Your task to perform on an android device: uninstall "Venmo" Image 0: 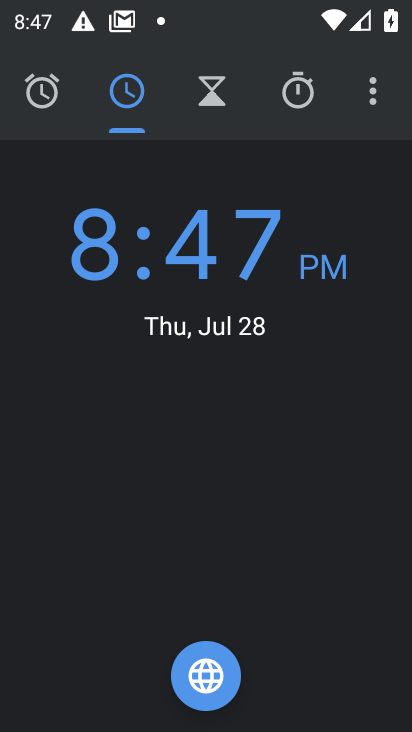
Step 0: press home button
Your task to perform on an android device: uninstall "Venmo" Image 1: 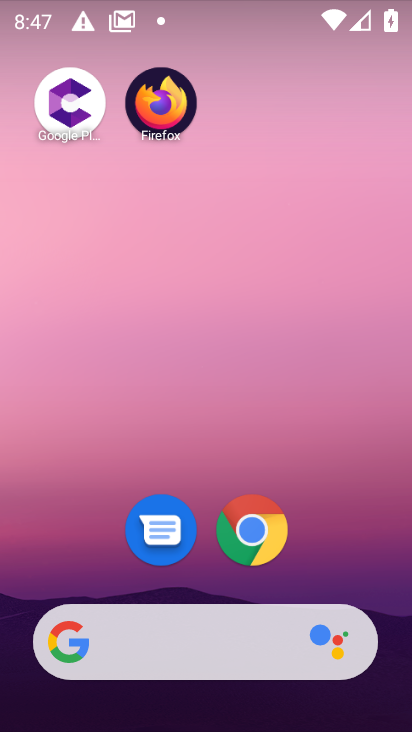
Step 1: drag from (400, 610) to (282, 136)
Your task to perform on an android device: uninstall "Venmo" Image 2: 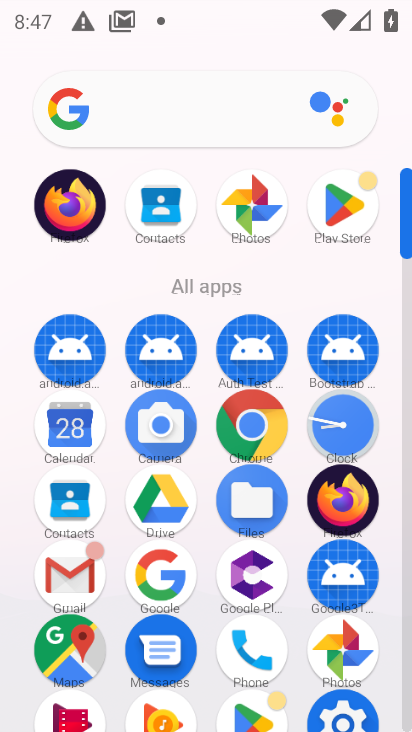
Step 2: click (353, 221)
Your task to perform on an android device: uninstall "Venmo" Image 3: 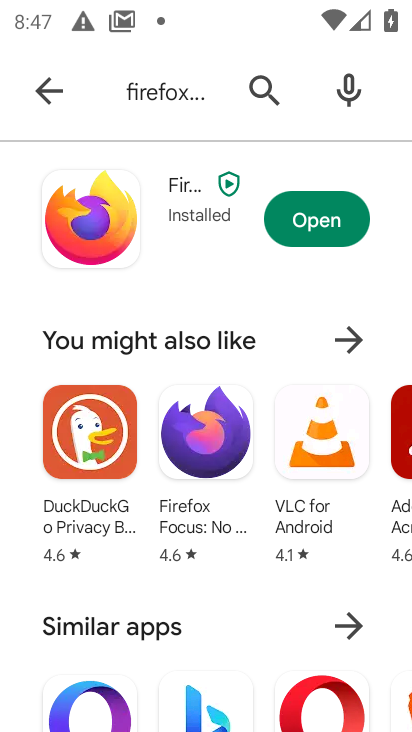
Step 3: click (265, 86)
Your task to perform on an android device: uninstall "Venmo" Image 4: 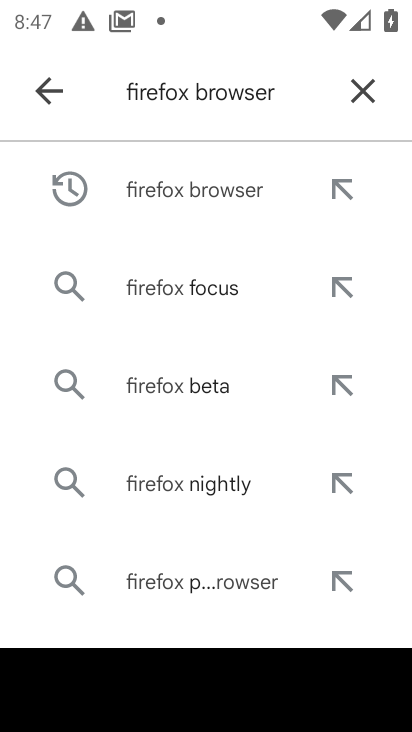
Step 4: click (366, 81)
Your task to perform on an android device: uninstall "Venmo" Image 5: 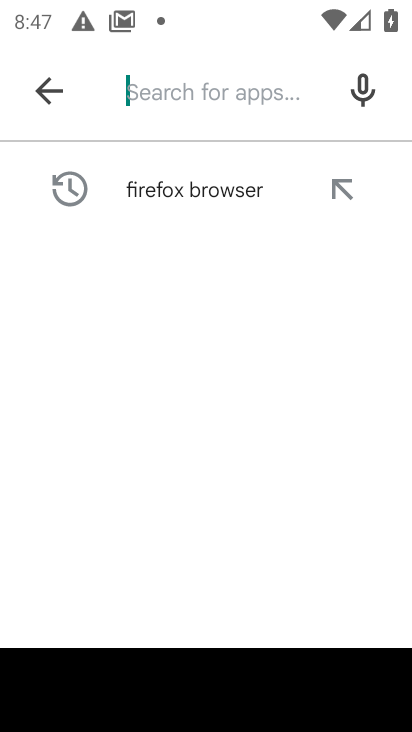
Step 5: type "Venmo"
Your task to perform on an android device: uninstall "Venmo" Image 6: 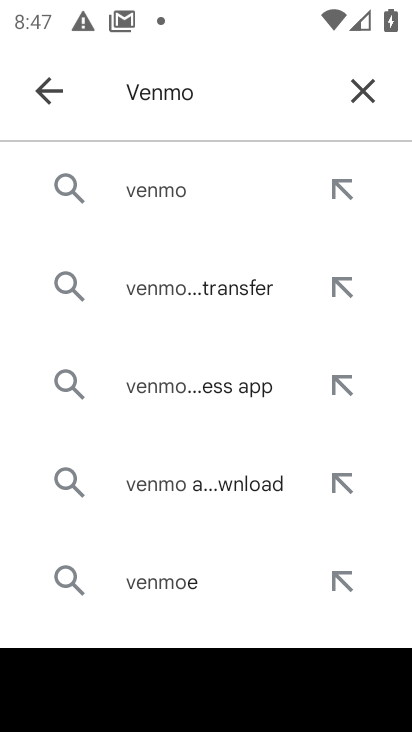
Step 6: click (166, 213)
Your task to perform on an android device: uninstall "Venmo" Image 7: 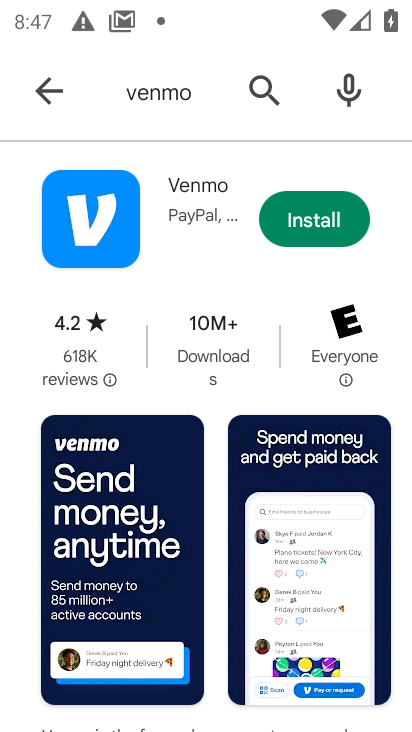
Step 7: task complete